Your task to perform on an android device: turn on showing notifications on the lock screen Image 0: 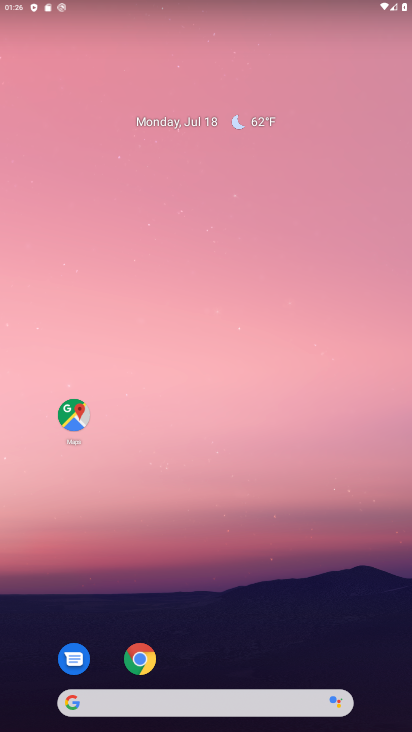
Step 0: drag from (315, 636) to (286, 113)
Your task to perform on an android device: turn on showing notifications on the lock screen Image 1: 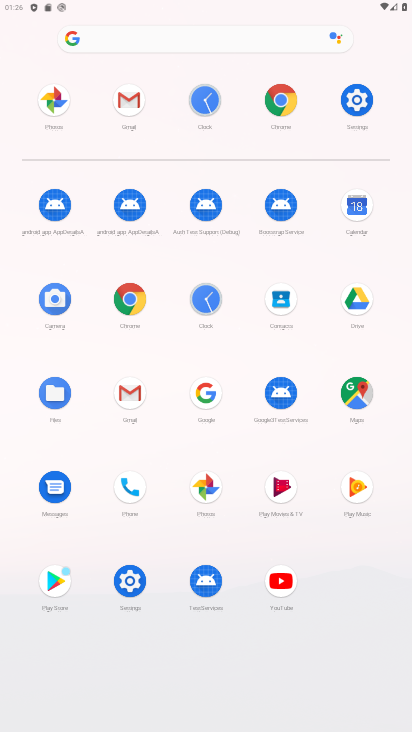
Step 1: click (350, 95)
Your task to perform on an android device: turn on showing notifications on the lock screen Image 2: 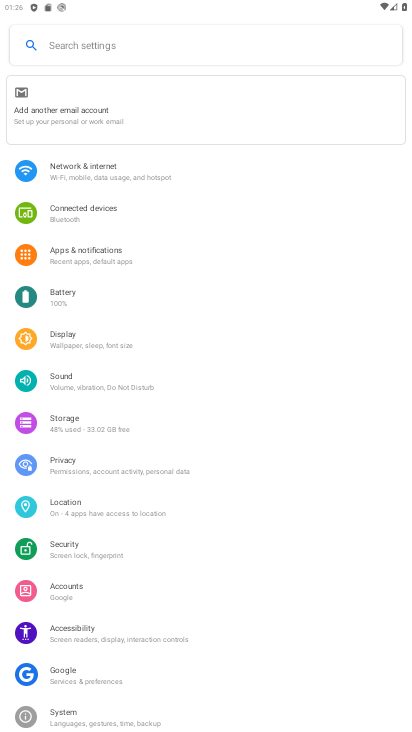
Step 2: click (105, 252)
Your task to perform on an android device: turn on showing notifications on the lock screen Image 3: 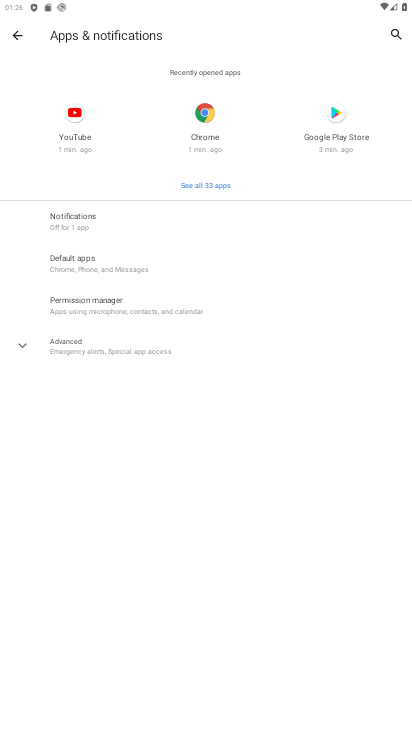
Step 3: click (91, 228)
Your task to perform on an android device: turn on showing notifications on the lock screen Image 4: 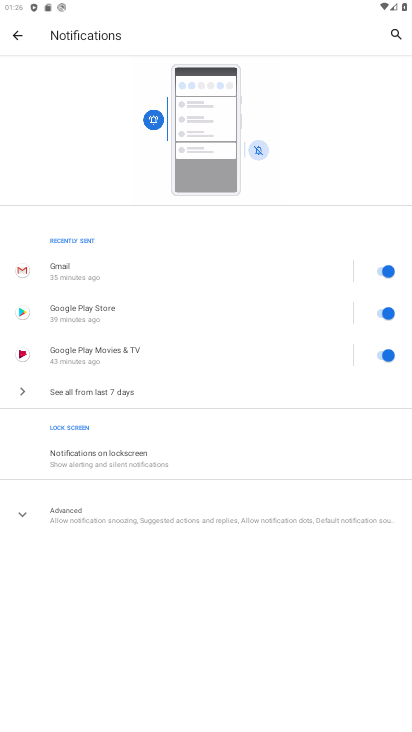
Step 4: click (334, 366)
Your task to perform on an android device: turn on showing notifications on the lock screen Image 5: 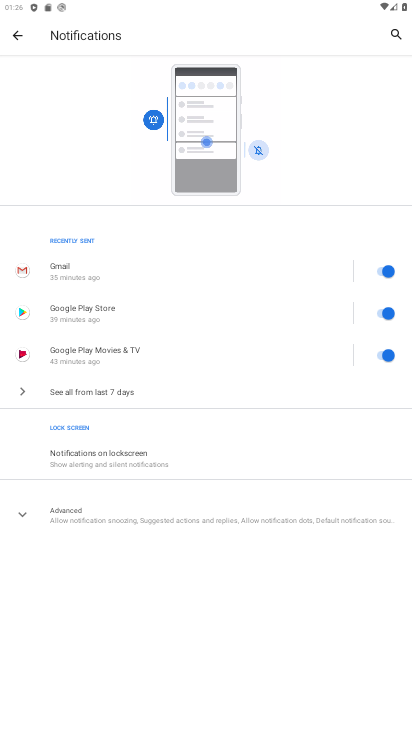
Step 5: click (334, 366)
Your task to perform on an android device: turn on showing notifications on the lock screen Image 6: 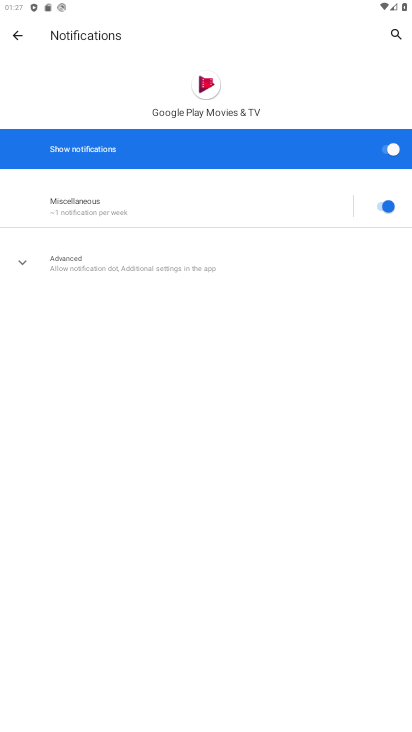
Step 6: press back button
Your task to perform on an android device: turn on showing notifications on the lock screen Image 7: 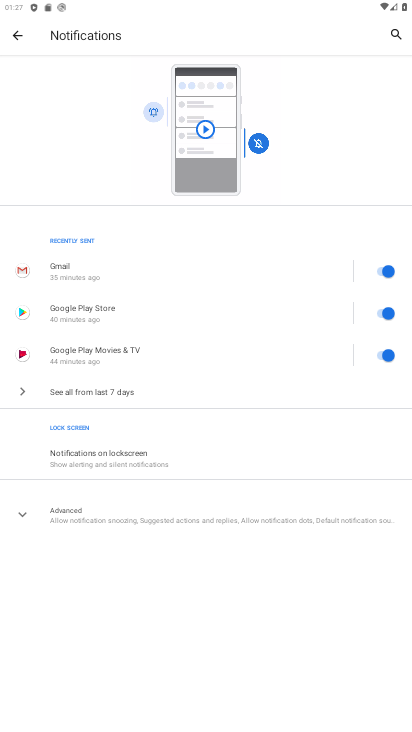
Step 7: press back button
Your task to perform on an android device: turn on showing notifications on the lock screen Image 8: 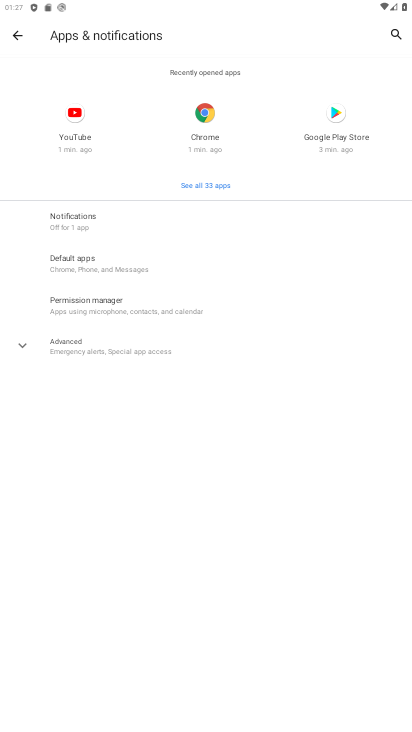
Step 8: click (89, 224)
Your task to perform on an android device: turn on showing notifications on the lock screen Image 9: 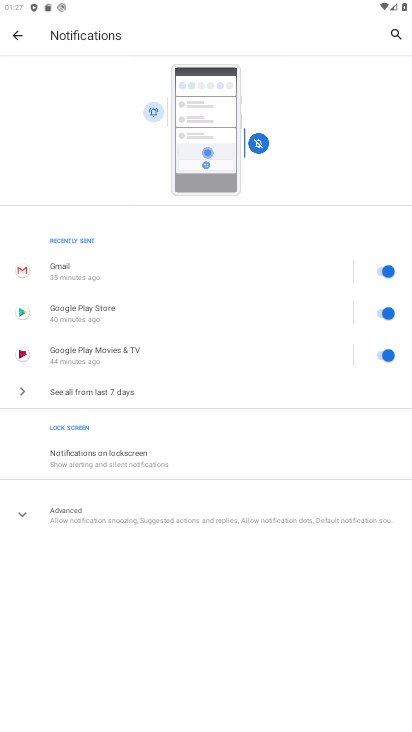
Step 9: click (151, 448)
Your task to perform on an android device: turn on showing notifications on the lock screen Image 10: 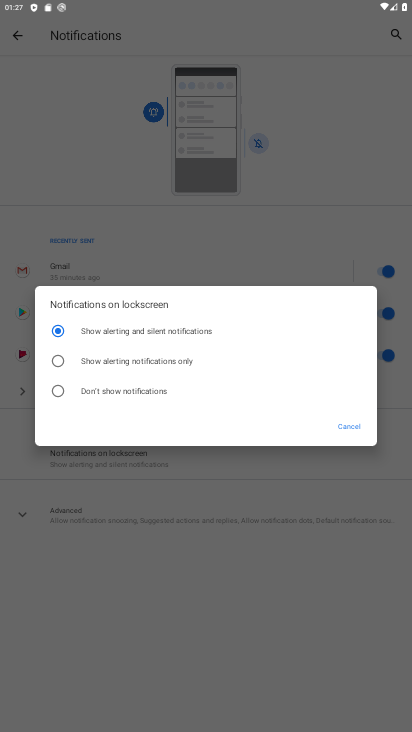
Step 10: click (163, 360)
Your task to perform on an android device: turn on showing notifications on the lock screen Image 11: 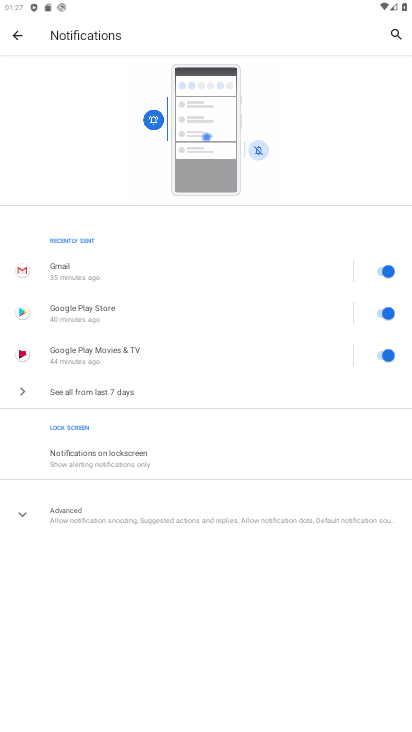
Step 11: task complete